Your task to perform on an android device: What's on my calendar tomorrow? Image 0: 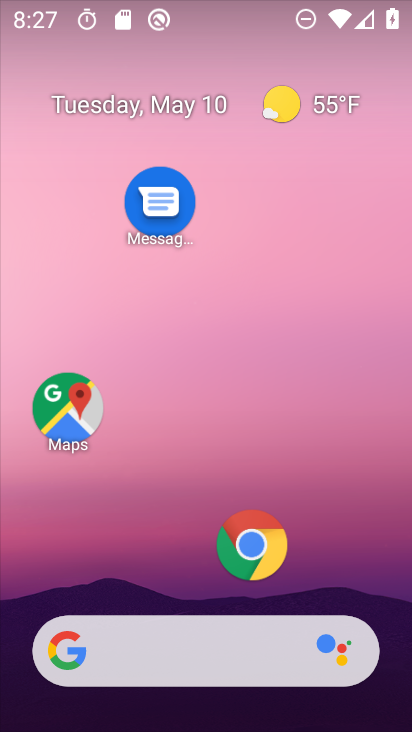
Step 0: drag from (203, 585) to (192, 179)
Your task to perform on an android device: What's on my calendar tomorrow? Image 1: 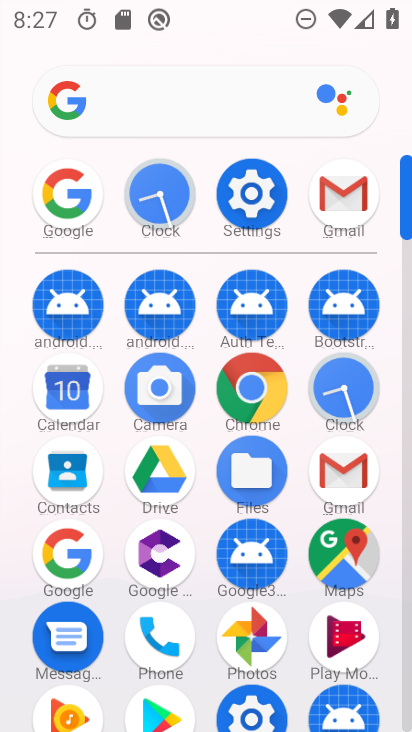
Step 1: click (60, 405)
Your task to perform on an android device: What's on my calendar tomorrow? Image 2: 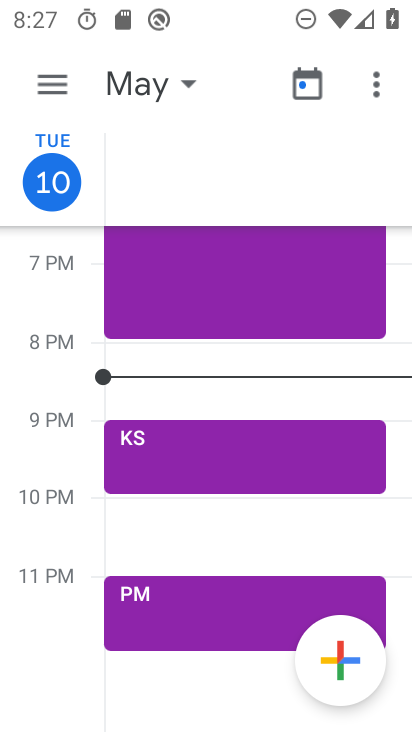
Step 2: click (195, 92)
Your task to perform on an android device: What's on my calendar tomorrow? Image 3: 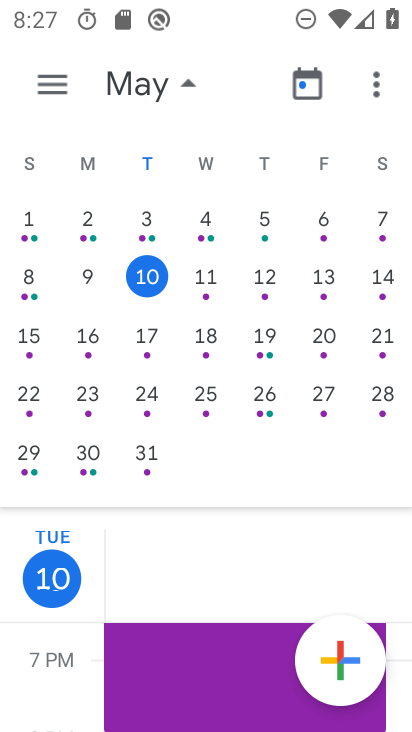
Step 3: click (213, 289)
Your task to perform on an android device: What's on my calendar tomorrow? Image 4: 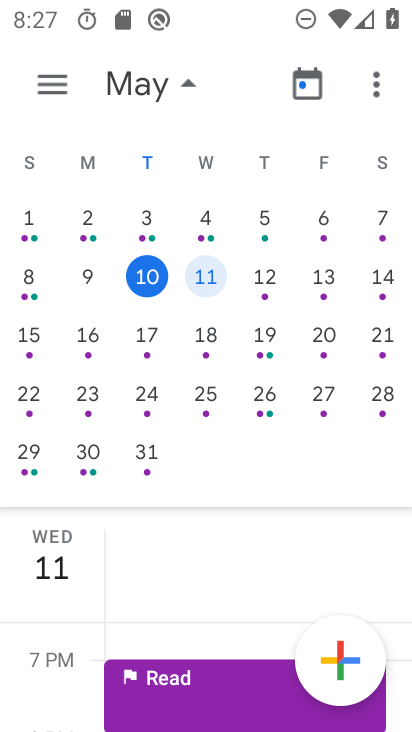
Step 4: click (212, 278)
Your task to perform on an android device: What's on my calendar tomorrow? Image 5: 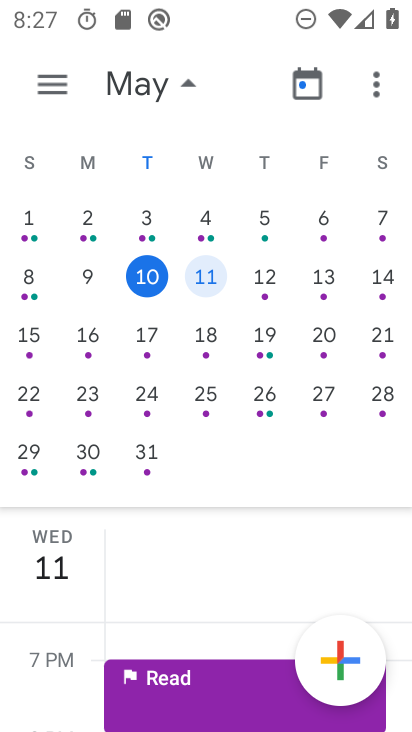
Step 5: click (212, 278)
Your task to perform on an android device: What's on my calendar tomorrow? Image 6: 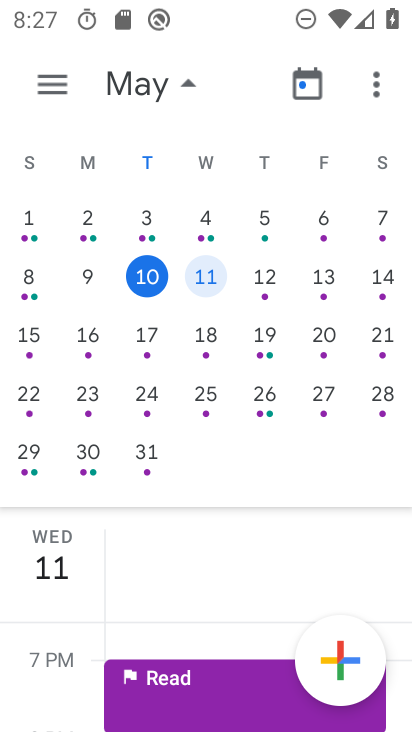
Step 6: click (212, 278)
Your task to perform on an android device: What's on my calendar tomorrow? Image 7: 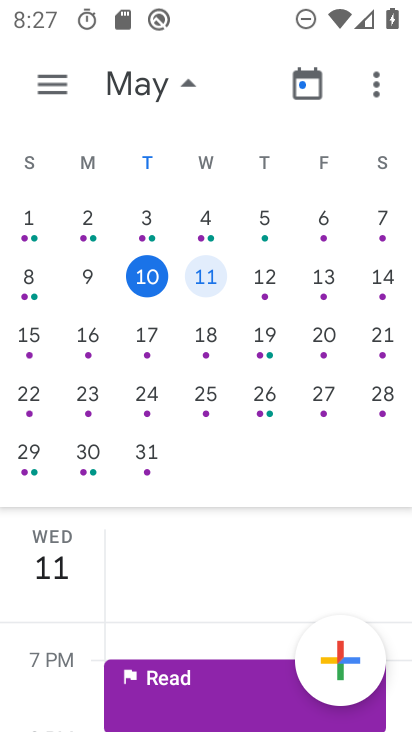
Step 7: task complete